Your task to perform on an android device: When is my next meeting? Image 0: 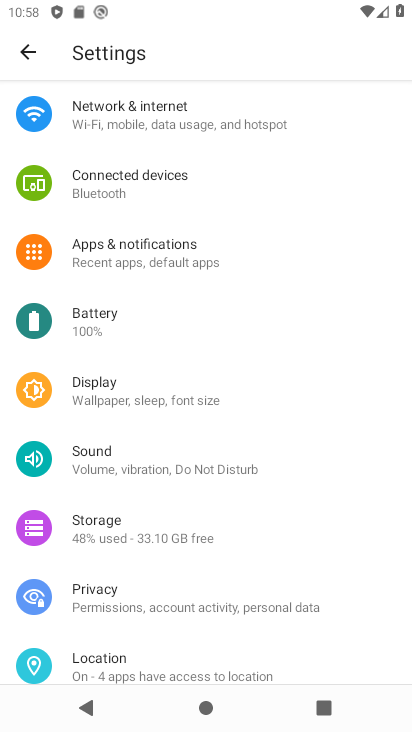
Step 0: press home button
Your task to perform on an android device: When is my next meeting? Image 1: 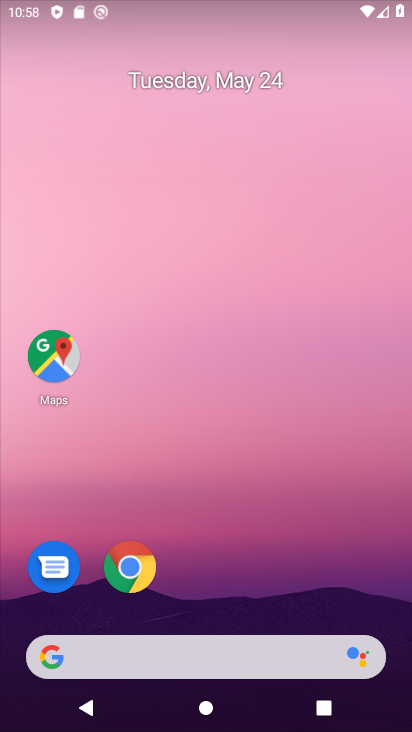
Step 1: drag from (259, 568) to (326, 91)
Your task to perform on an android device: When is my next meeting? Image 2: 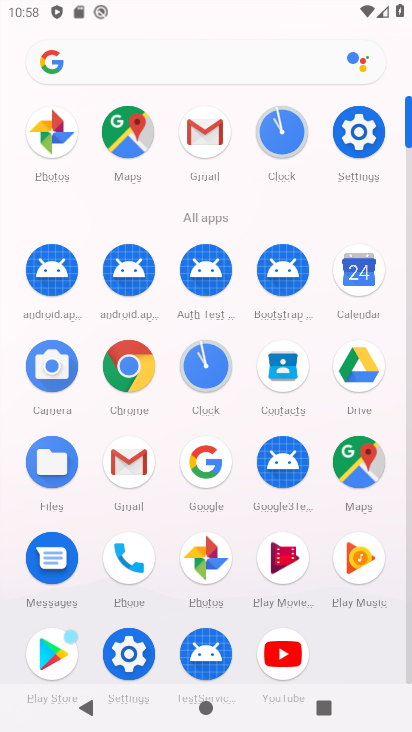
Step 2: drag from (367, 278) to (140, 270)
Your task to perform on an android device: When is my next meeting? Image 3: 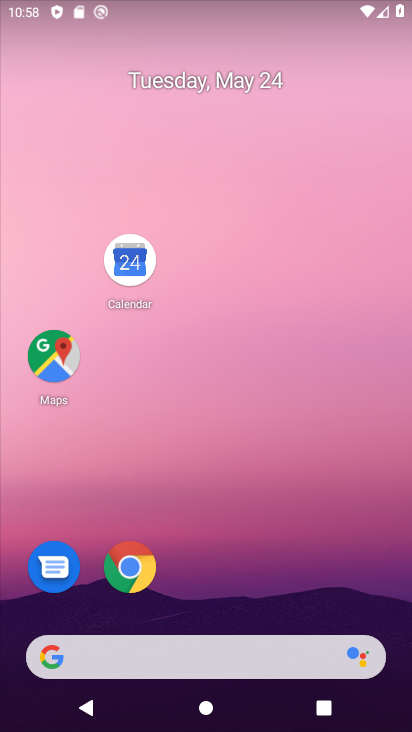
Step 3: click (129, 267)
Your task to perform on an android device: When is my next meeting? Image 4: 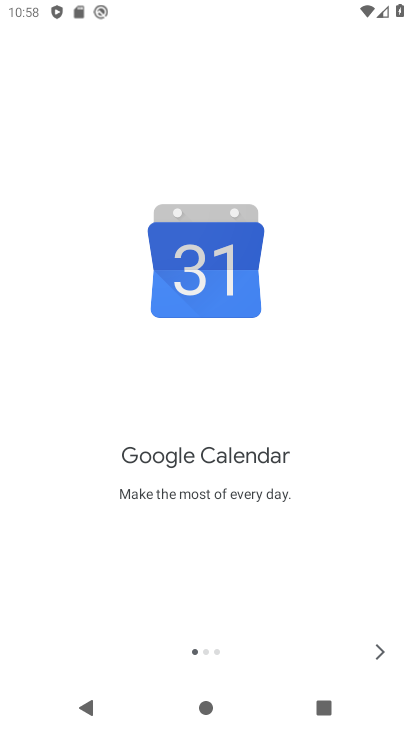
Step 4: click (376, 647)
Your task to perform on an android device: When is my next meeting? Image 5: 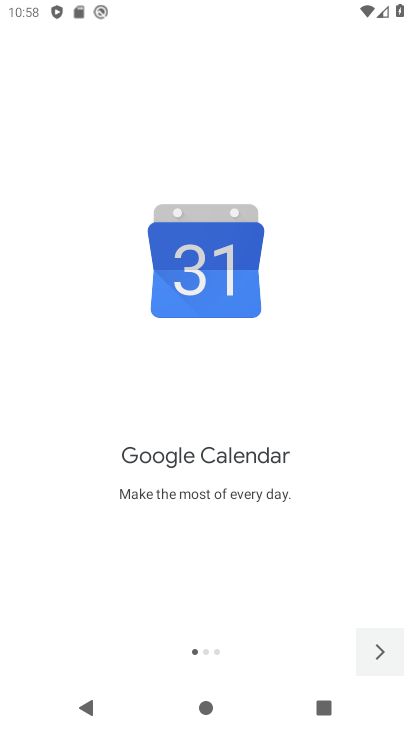
Step 5: click (376, 647)
Your task to perform on an android device: When is my next meeting? Image 6: 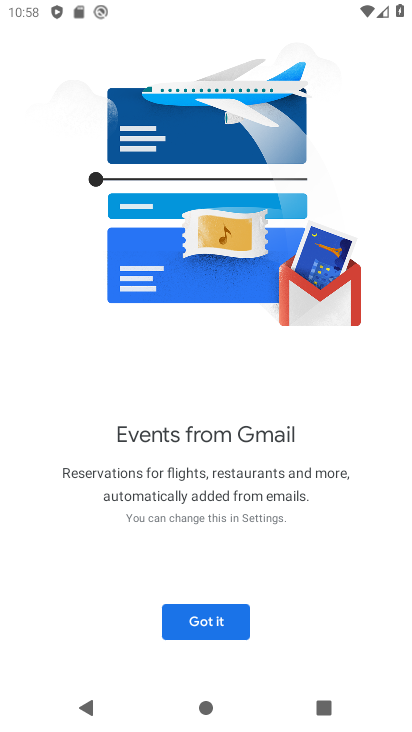
Step 6: click (238, 625)
Your task to perform on an android device: When is my next meeting? Image 7: 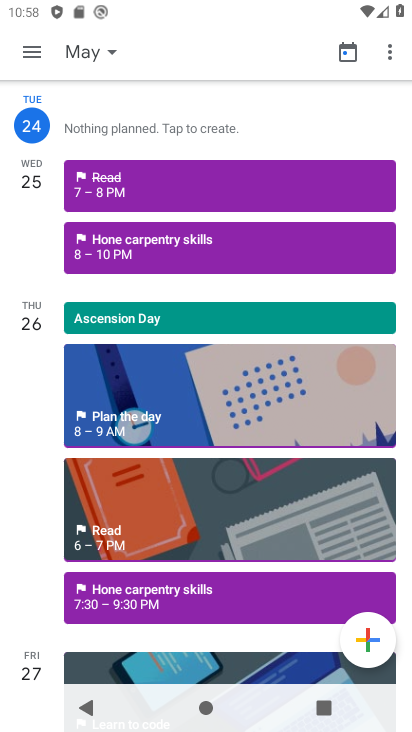
Step 7: click (31, 305)
Your task to perform on an android device: When is my next meeting? Image 8: 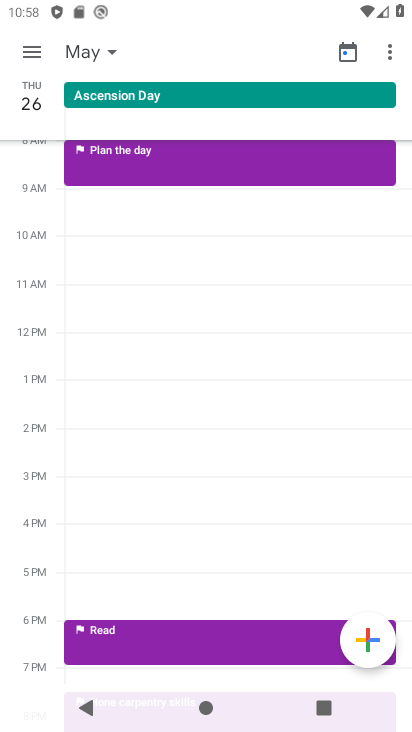
Step 8: task complete